Your task to perform on an android device: Turn on the flashlight Image 0: 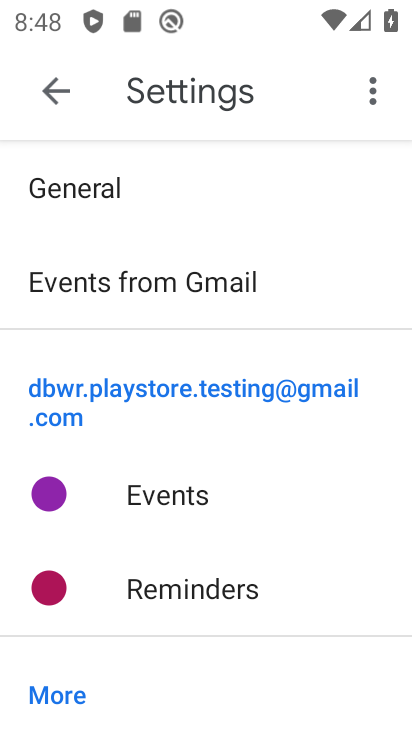
Step 0: press home button
Your task to perform on an android device: Turn on the flashlight Image 1: 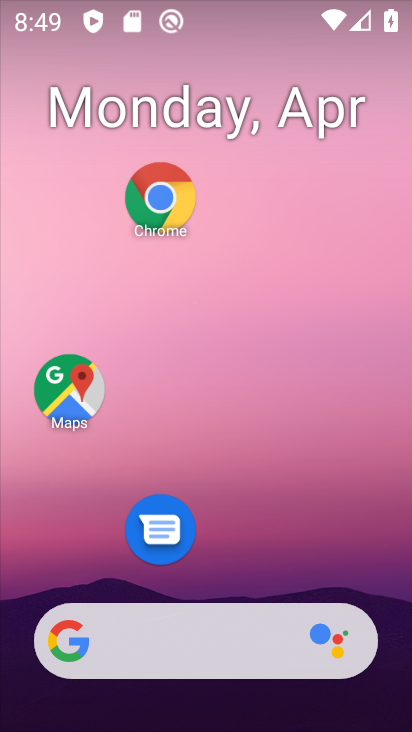
Step 1: drag from (256, 546) to (338, 42)
Your task to perform on an android device: Turn on the flashlight Image 2: 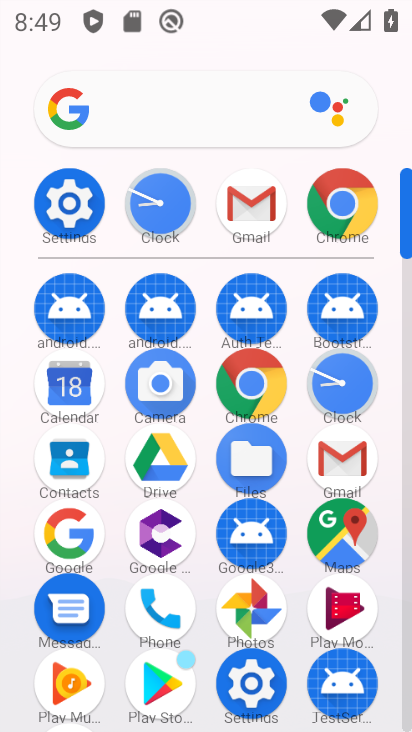
Step 2: click (81, 202)
Your task to perform on an android device: Turn on the flashlight Image 3: 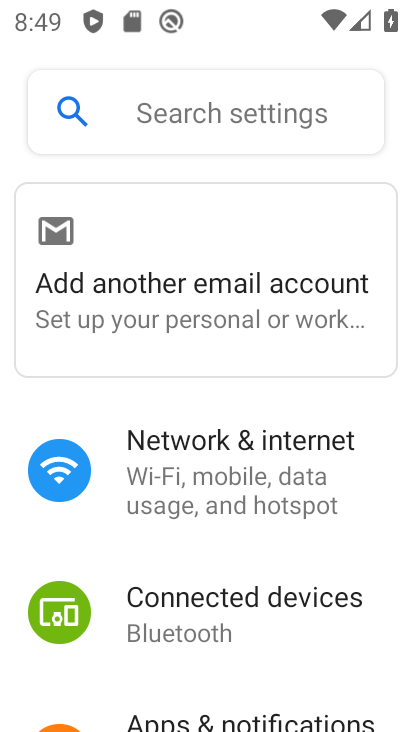
Step 3: click (164, 113)
Your task to perform on an android device: Turn on the flashlight Image 4: 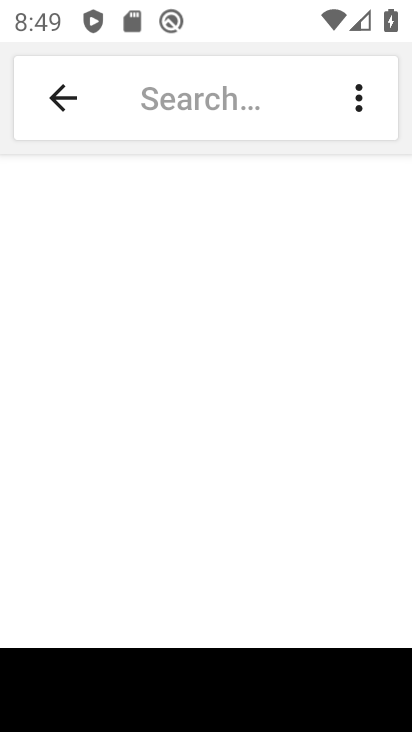
Step 4: type "flashlight"
Your task to perform on an android device: Turn on the flashlight Image 5: 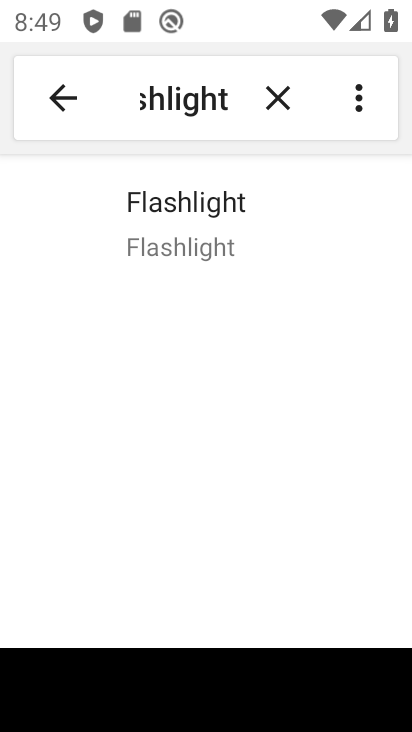
Step 5: click (172, 204)
Your task to perform on an android device: Turn on the flashlight Image 6: 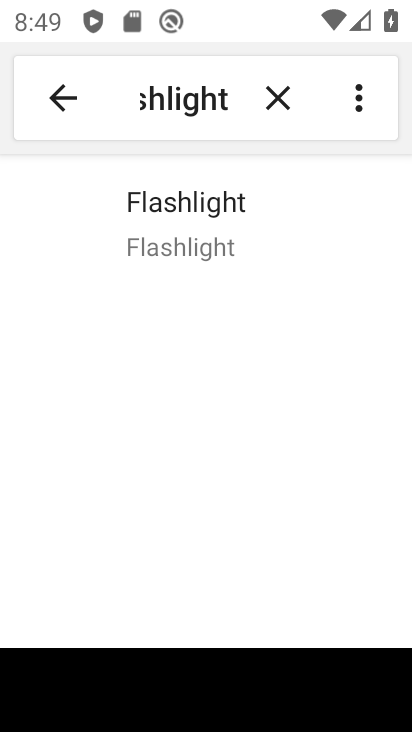
Step 6: click (256, 226)
Your task to perform on an android device: Turn on the flashlight Image 7: 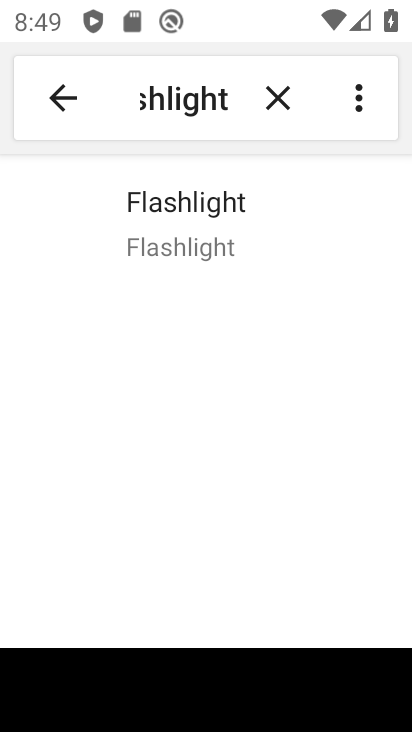
Step 7: task complete